Your task to perform on an android device: turn off priority inbox in the gmail app Image 0: 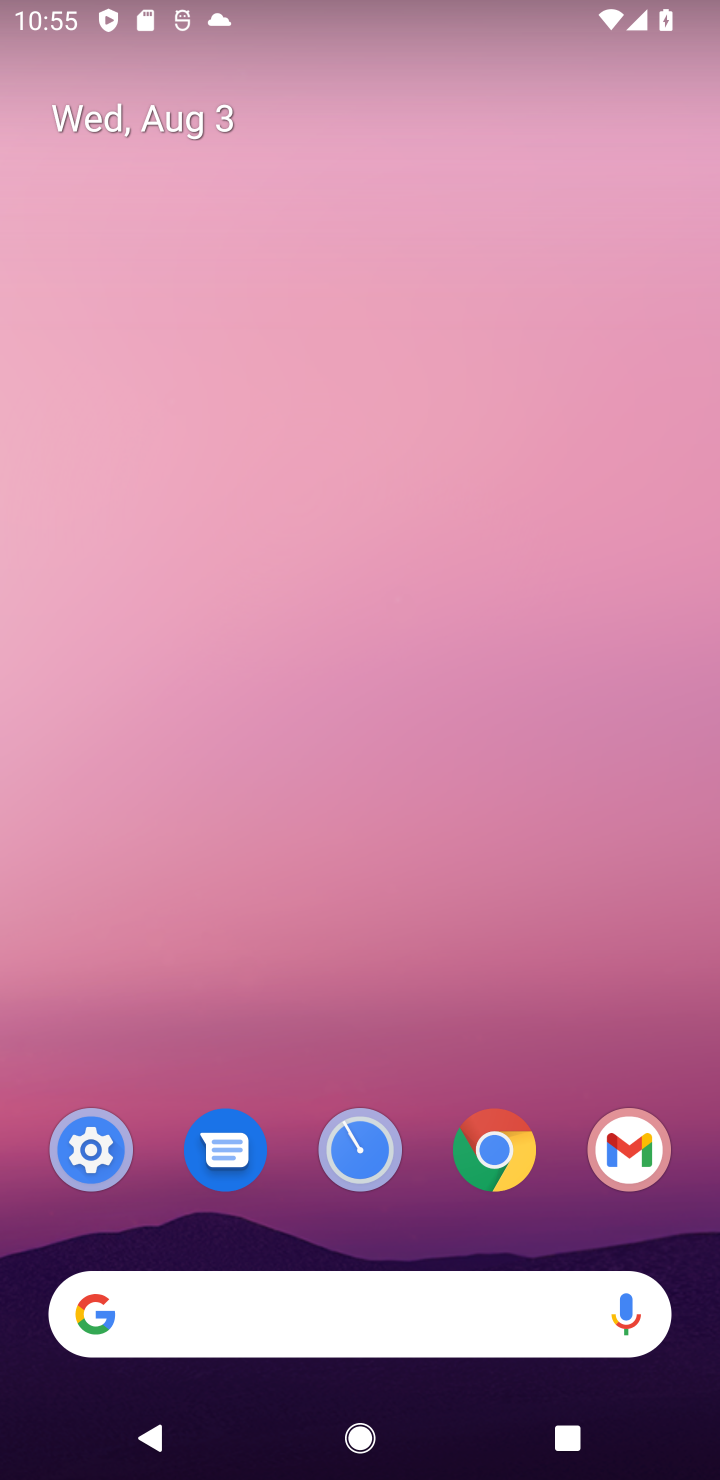
Step 0: press home button
Your task to perform on an android device: turn off priority inbox in the gmail app Image 1: 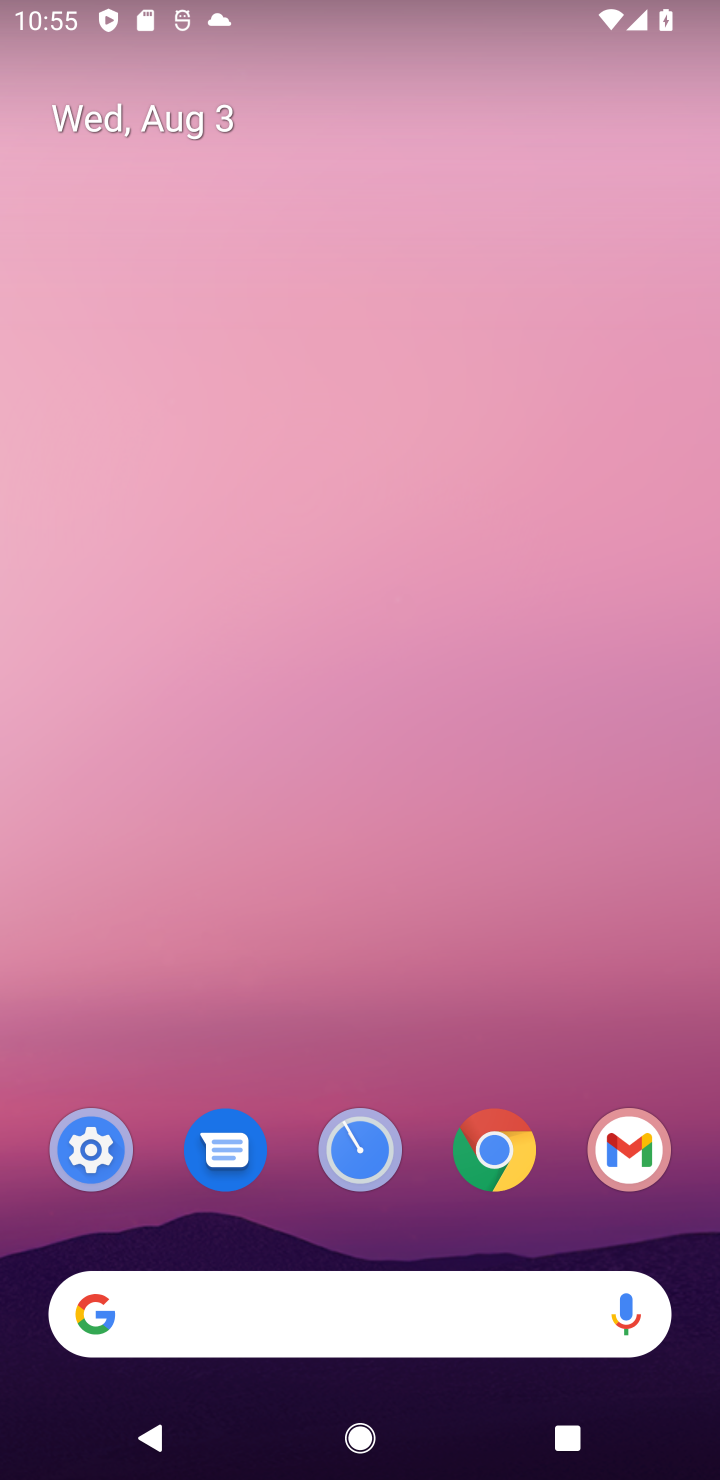
Step 1: drag from (571, 1056) to (702, 437)
Your task to perform on an android device: turn off priority inbox in the gmail app Image 2: 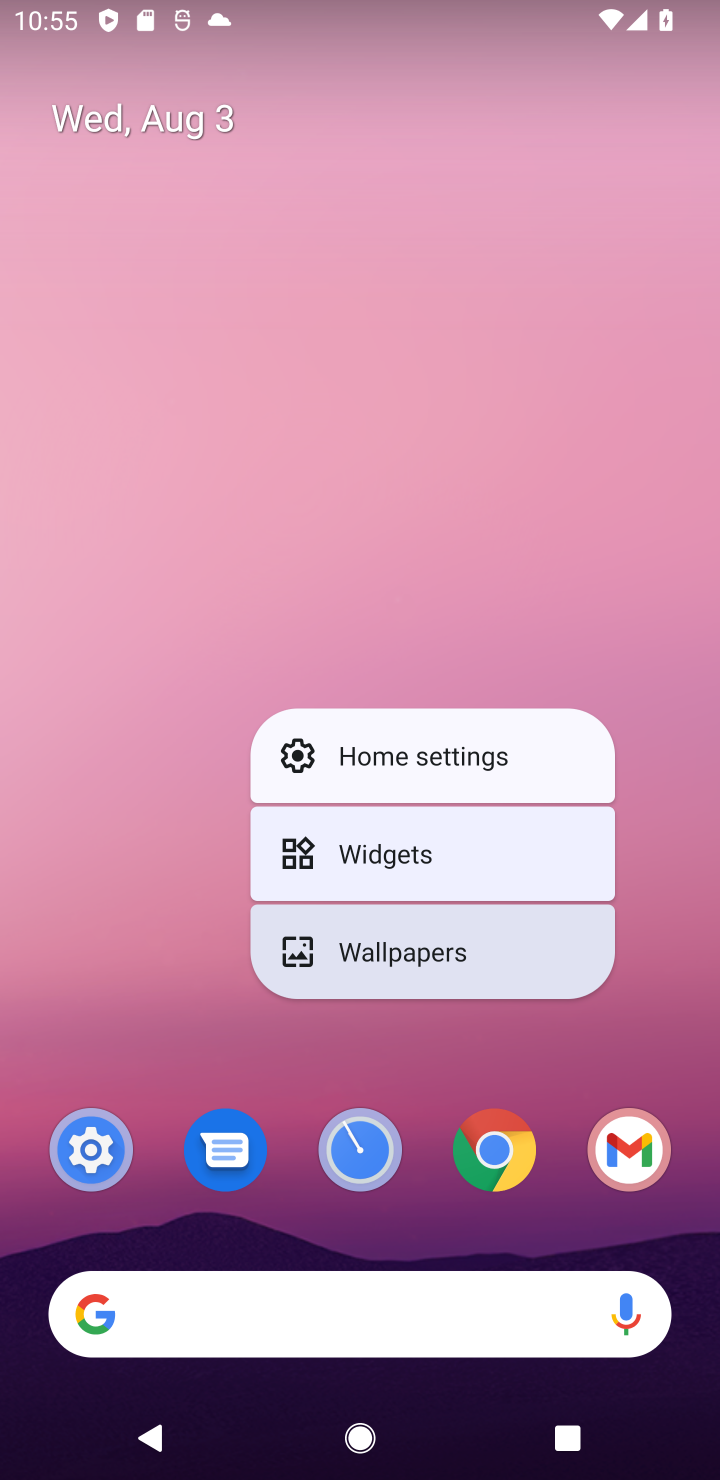
Step 2: click (149, 766)
Your task to perform on an android device: turn off priority inbox in the gmail app Image 3: 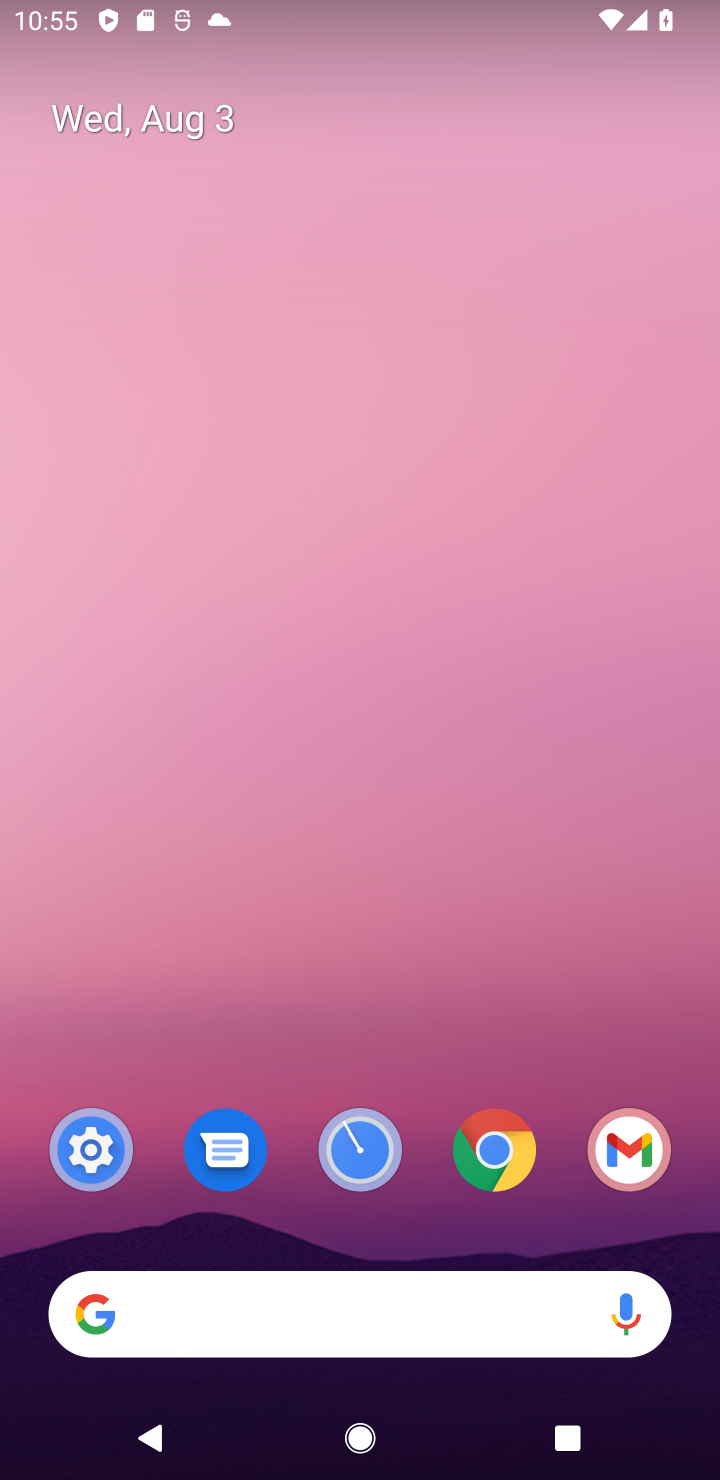
Step 3: drag from (547, 1036) to (527, 257)
Your task to perform on an android device: turn off priority inbox in the gmail app Image 4: 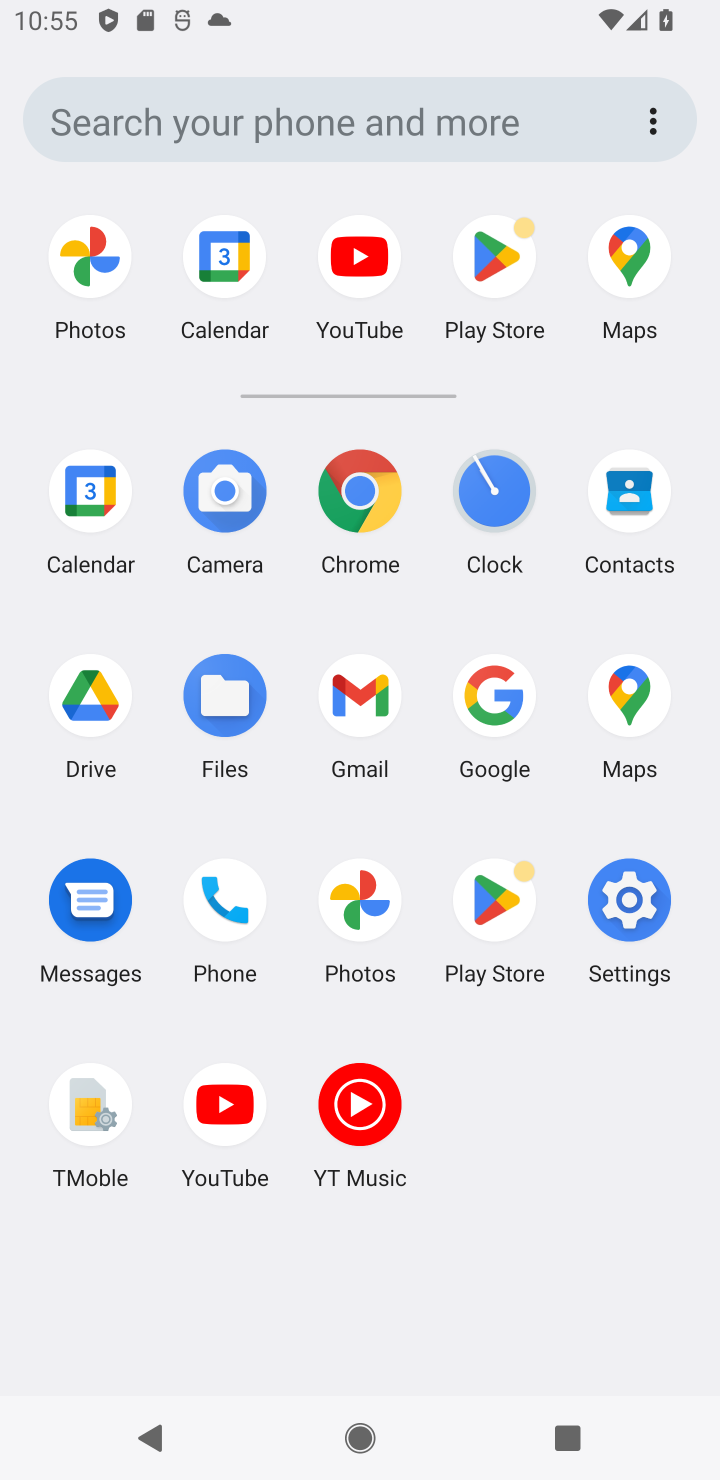
Step 4: click (352, 727)
Your task to perform on an android device: turn off priority inbox in the gmail app Image 5: 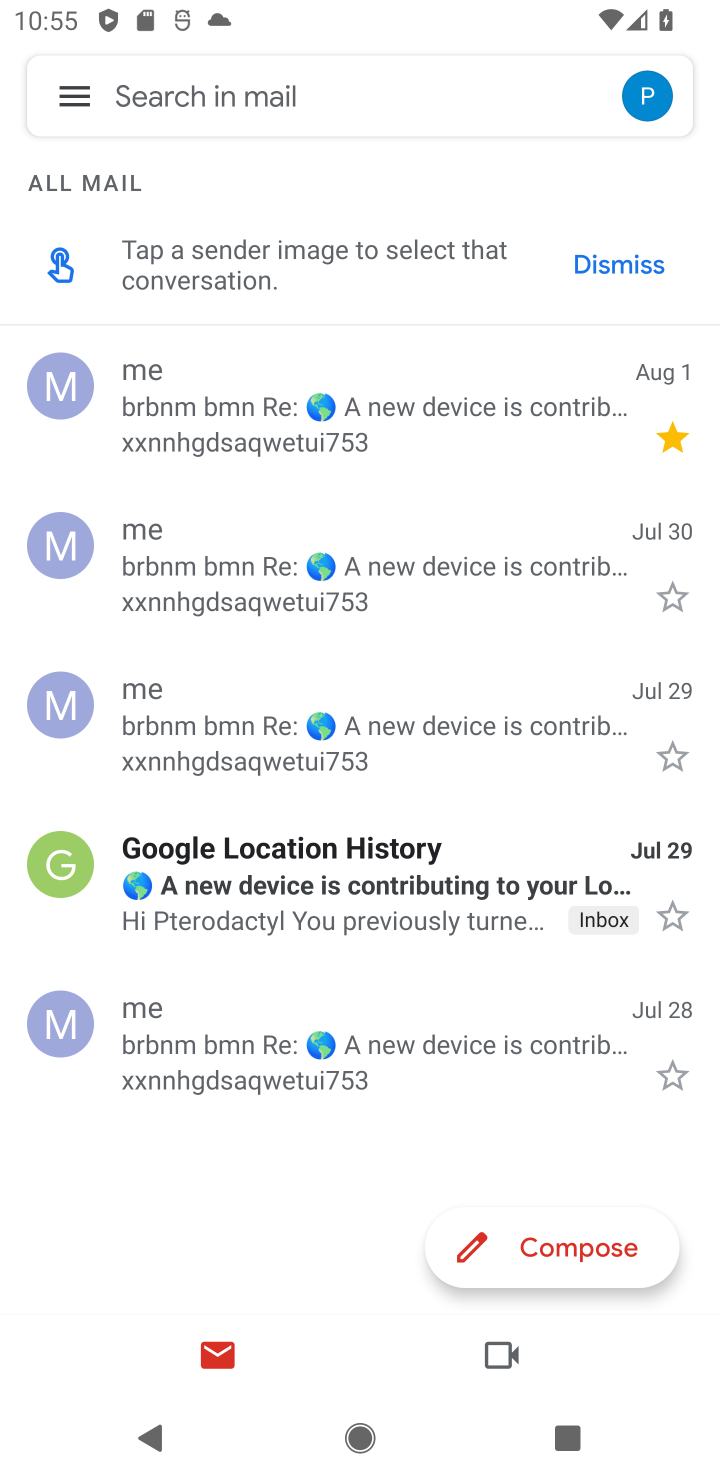
Step 5: click (65, 88)
Your task to perform on an android device: turn off priority inbox in the gmail app Image 6: 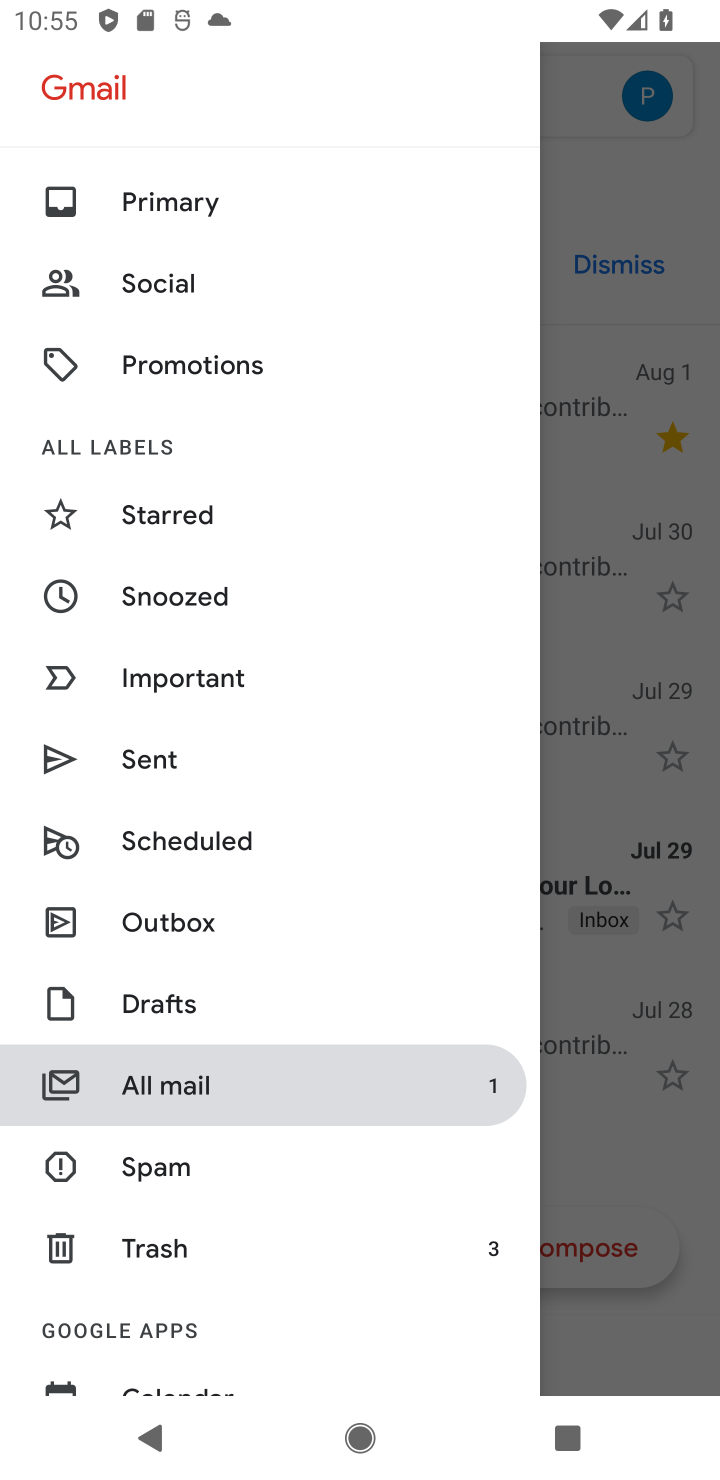
Step 6: drag from (384, 944) to (419, 628)
Your task to perform on an android device: turn off priority inbox in the gmail app Image 7: 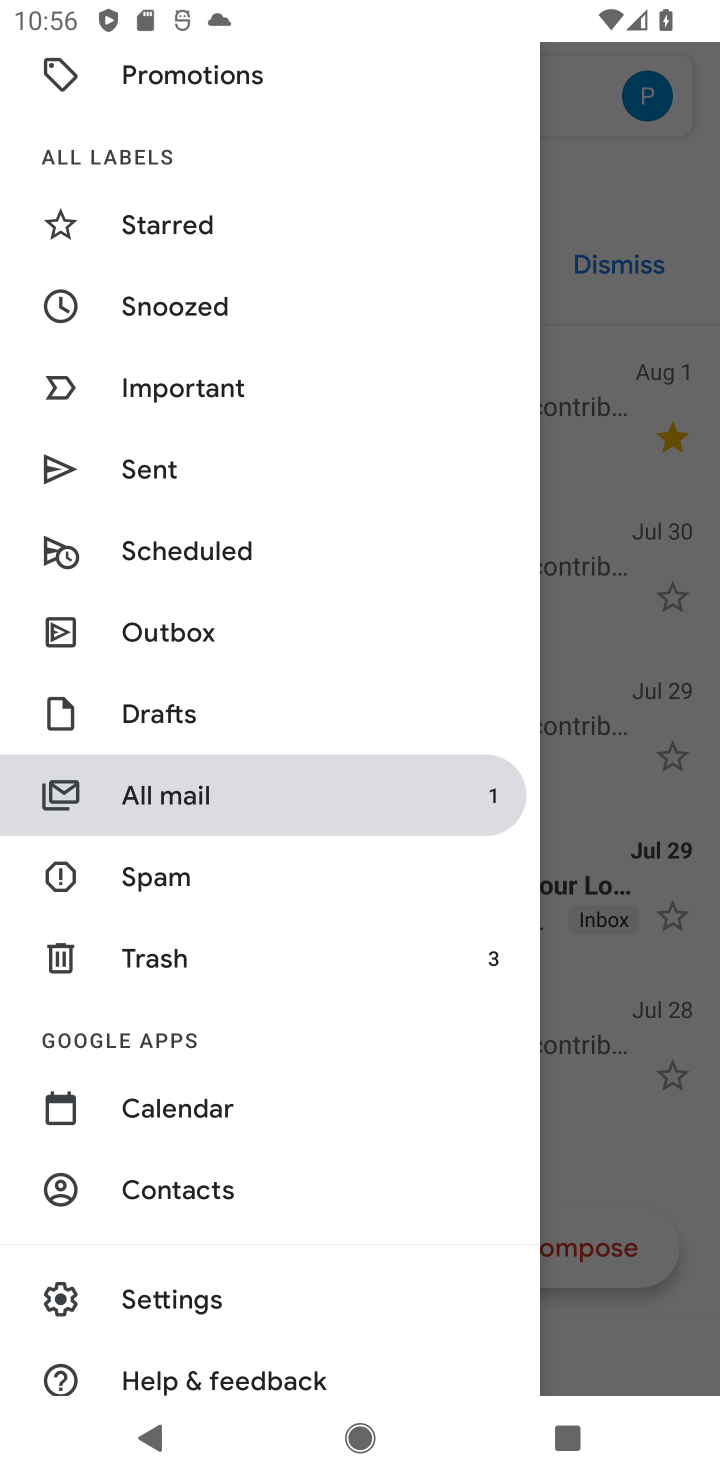
Step 7: drag from (350, 1034) to (378, 643)
Your task to perform on an android device: turn off priority inbox in the gmail app Image 8: 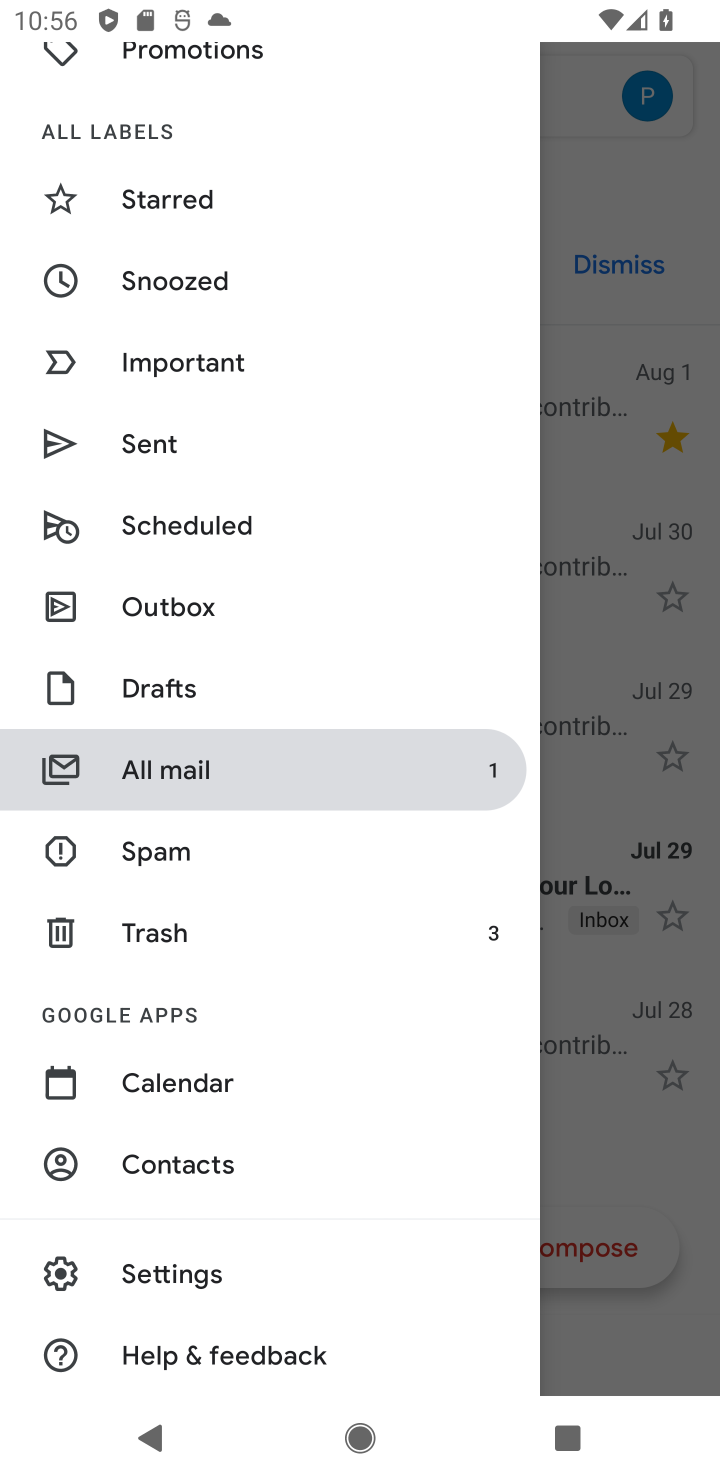
Step 8: click (300, 1276)
Your task to perform on an android device: turn off priority inbox in the gmail app Image 9: 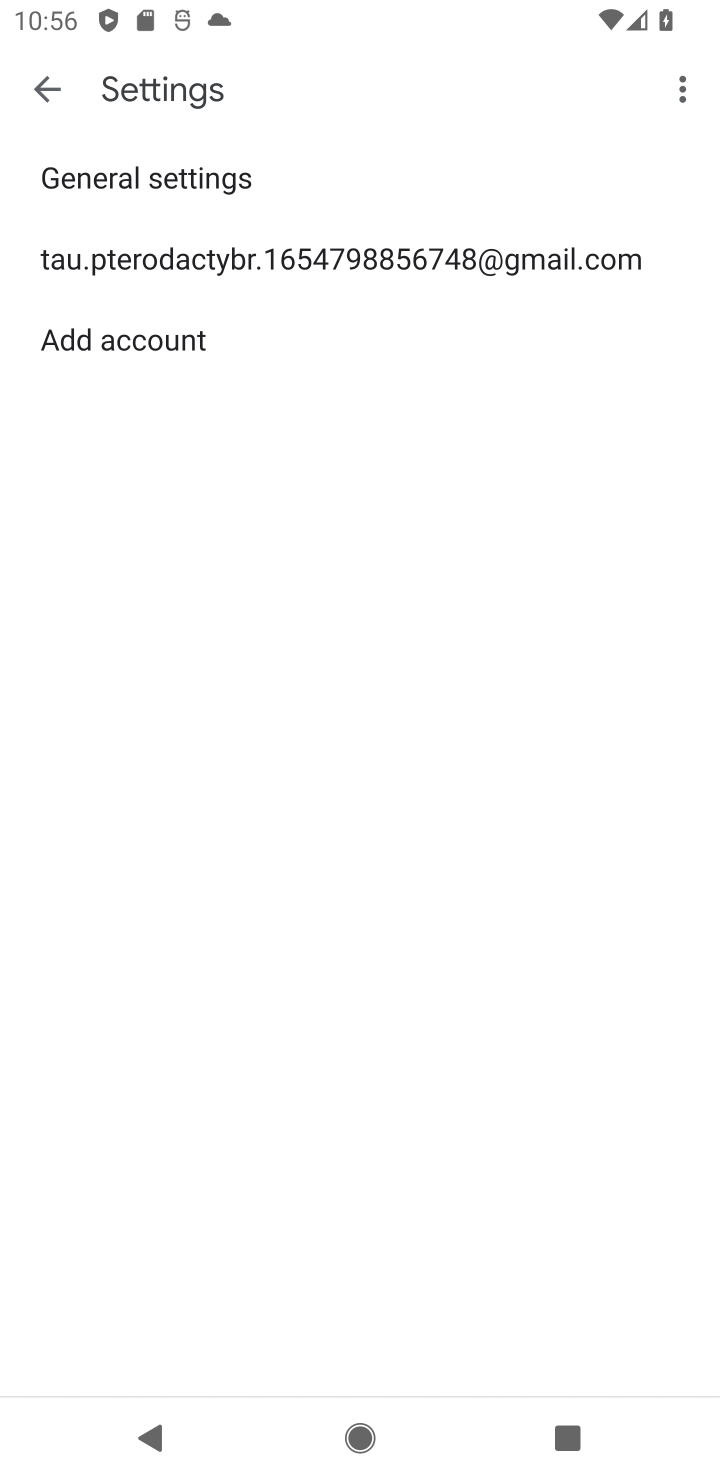
Step 9: click (374, 261)
Your task to perform on an android device: turn off priority inbox in the gmail app Image 10: 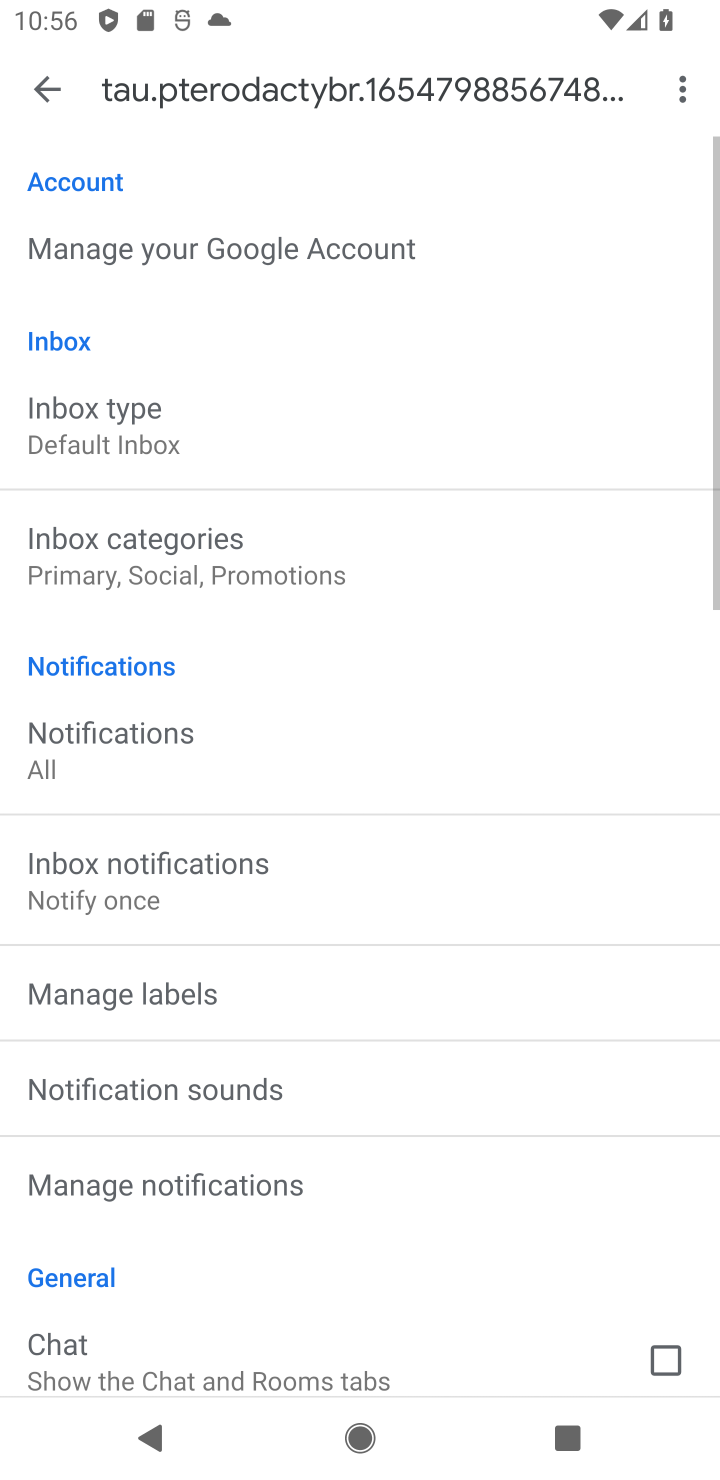
Step 10: task complete